Your task to perform on an android device: Toggle the flashlight Image 0: 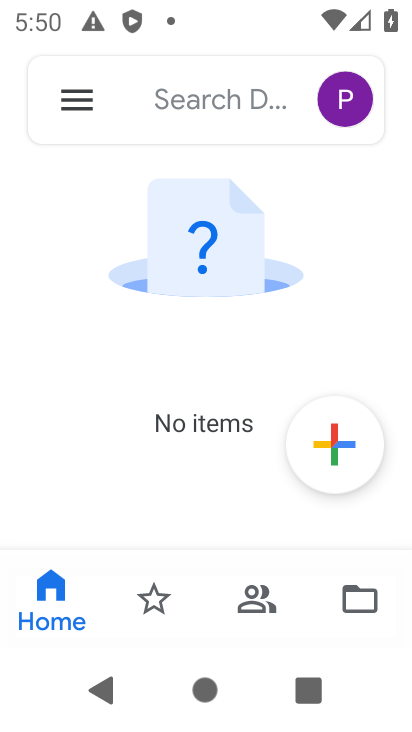
Step 0: press home button
Your task to perform on an android device: Toggle the flashlight Image 1: 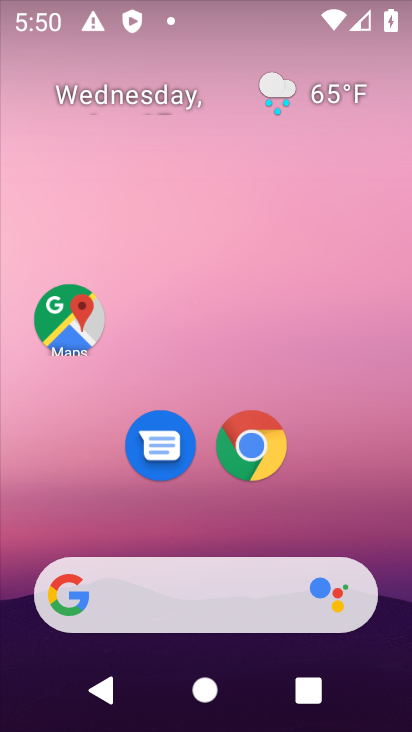
Step 1: click (216, 157)
Your task to perform on an android device: Toggle the flashlight Image 2: 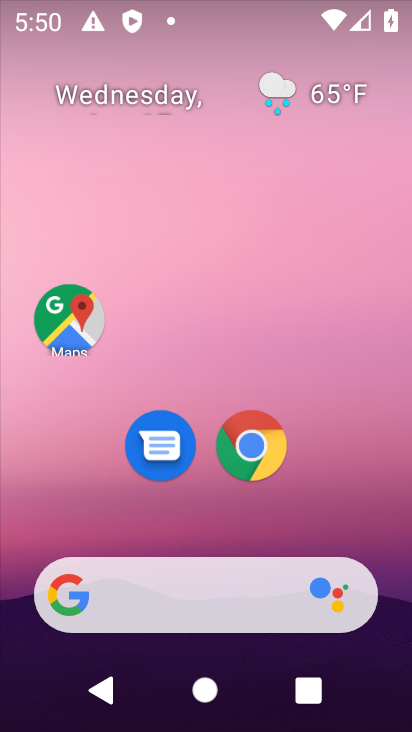
Step 2: drag from (200, 523) to (207, 117)
Your task to perform on an android device: Toggle the flashlight Image 3: 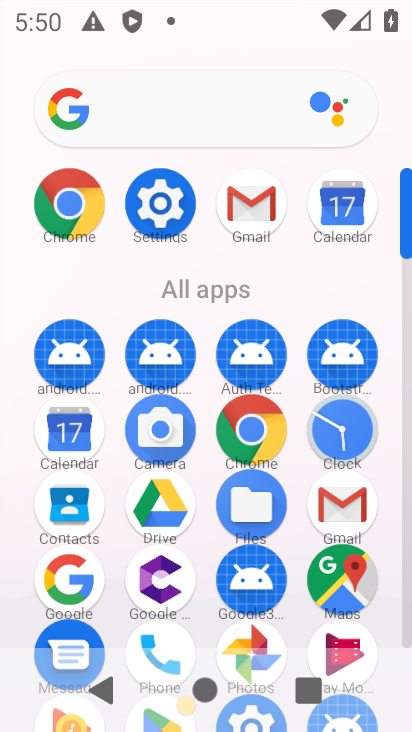
Step 3: click (161, 221)
Your task to perform on an android device: Toggle the flashlight Image 4: 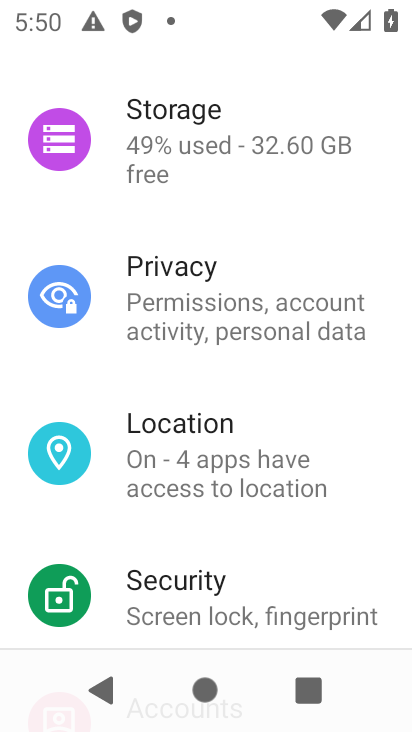
Step 4: task complete